Your task to perform on an android device: Open ESPN.com Image 0: 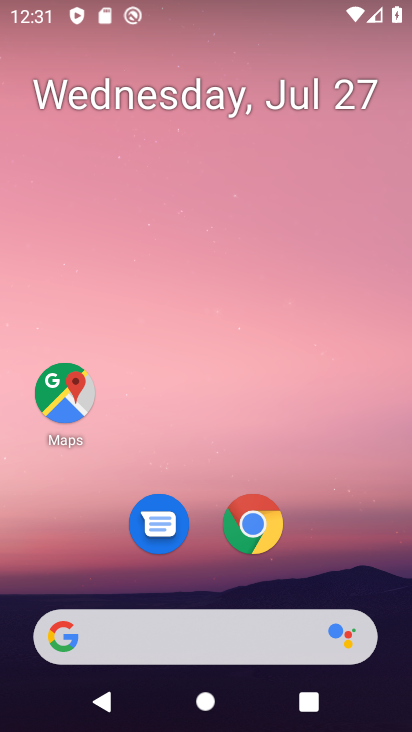
Step 0: click (251, 634)
Your task to perform on an android device: Open ESPN.com Image 1: 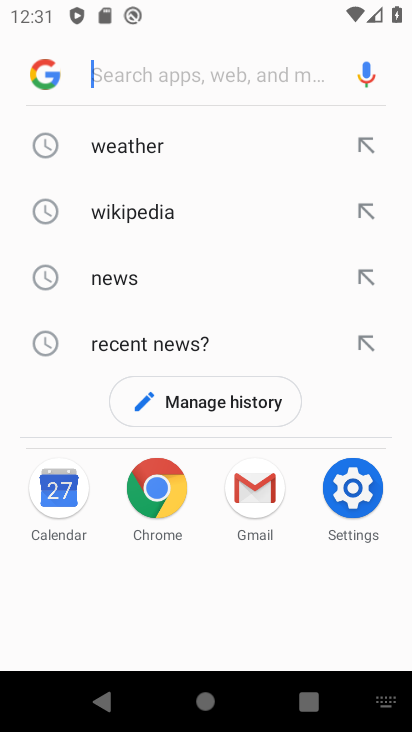
Step 1: type "espn.com"
Your task to perform on an android device: Open ESPN.com Image 2: 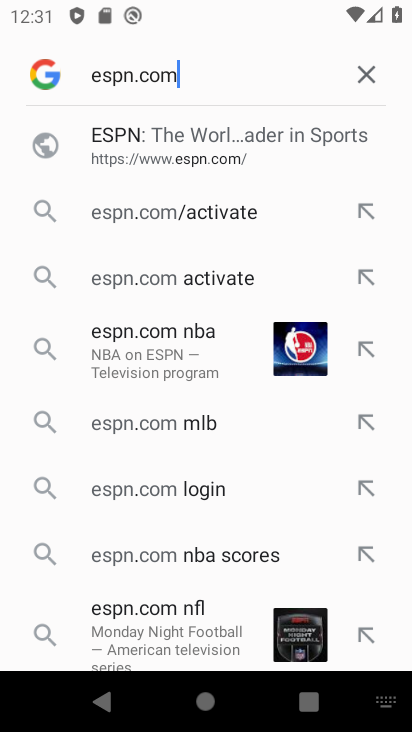
Step 2: click (195, 151)
Your task to perform on an android device: Open ESPN.com Image 3: 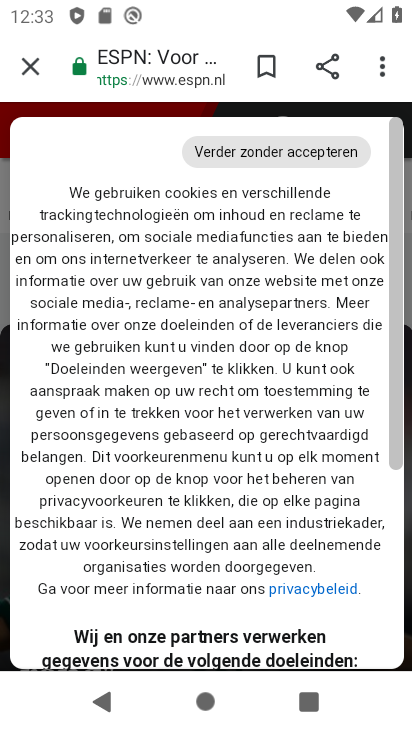
Step 3: task complete